Your task to perform on an android device: Show me recent news Image 0: 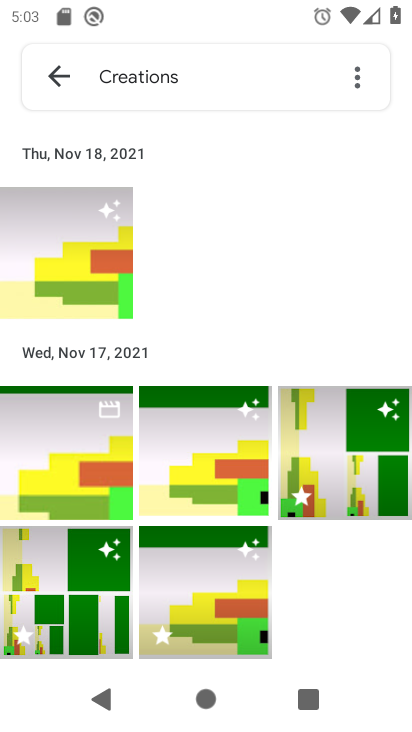
Step 0: press home button
Your task to perform on an android device: Show me recent news Image 1: 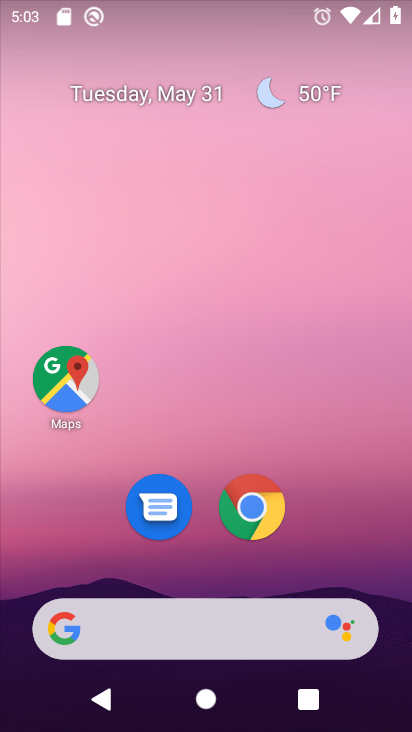
Step 1: click (220, 632)
Your task to perform on an android device: Show me recent news Image 2: 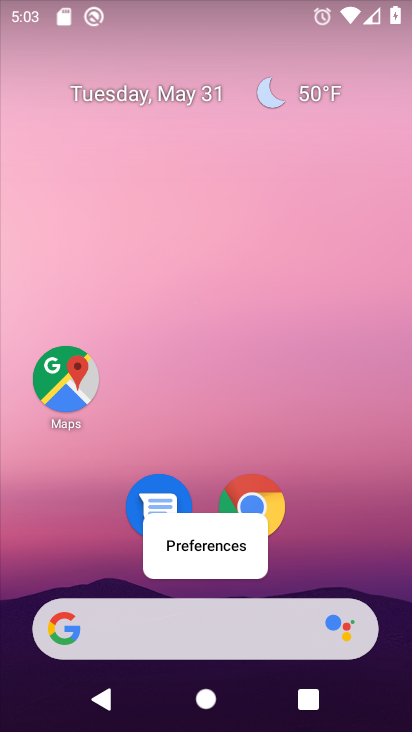
Step 2: click (140, 631)
Your task to perform on an android device: Show me recent news Image 3: 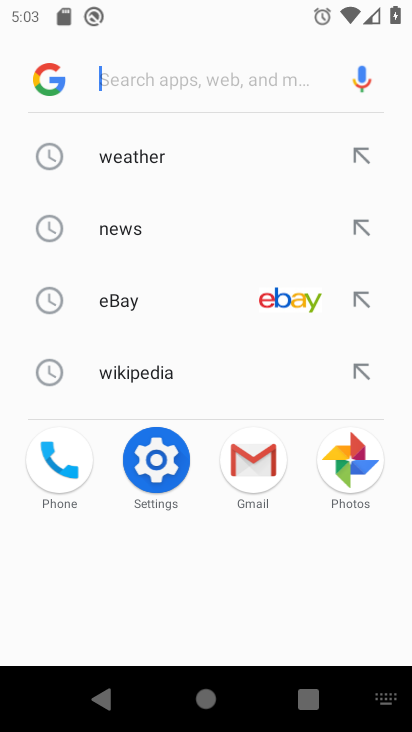
Step 3: click (100, 226)
Your task to perform on an android device: Show me recent news Image 4: 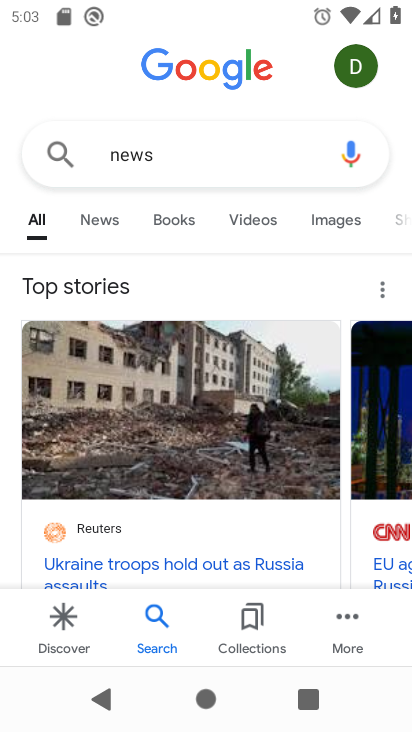
Step 4: click (105, 214)
Your task to perform on an android device: Show me recent news Image 5: 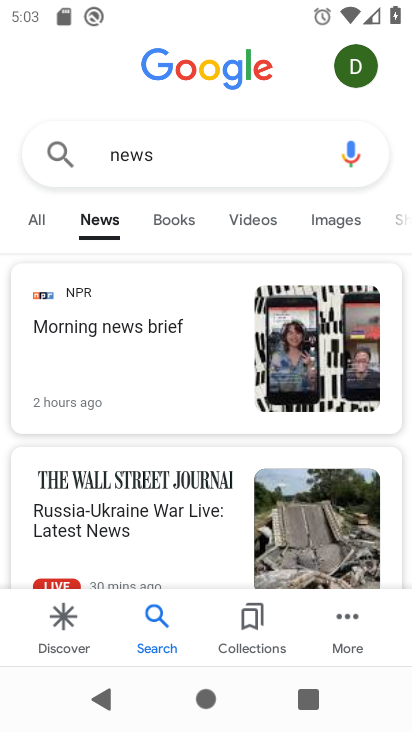
Step 5: task complete